Your task to perform on an android device: turn on the 12-hour format for clock Image 0: 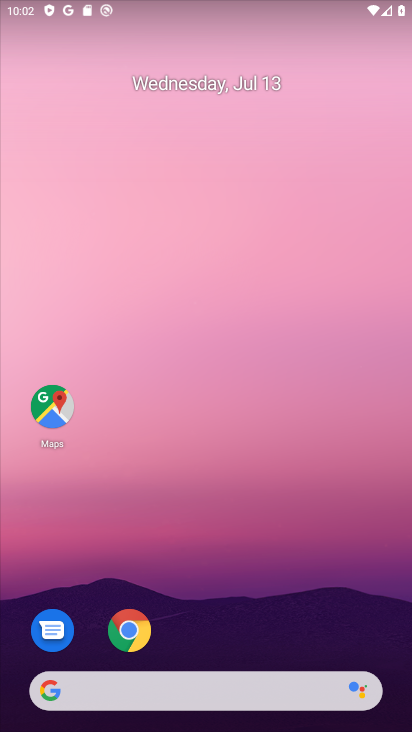
Step 0: drag from (261, 618) to (264, 146)
Your task to perform on an android device: turn on the 12-hour format for clock Image 1: 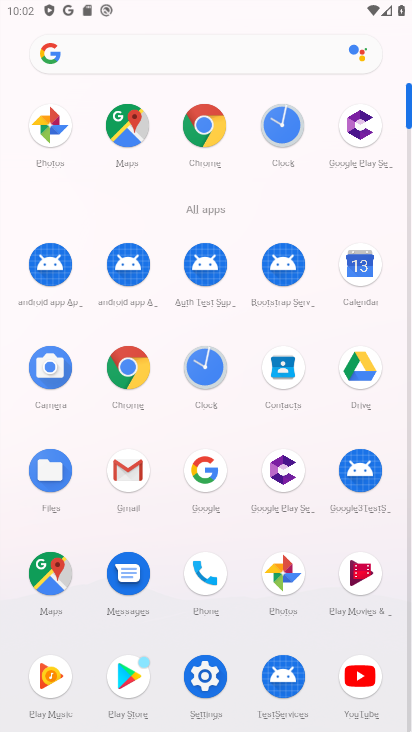
Step 1: click (284, 128)
Your task to perform on an android device: turn on the 12-hour format for clock Image 2: 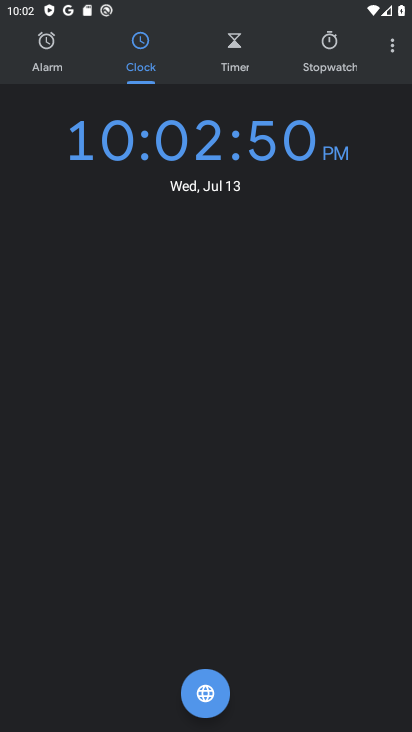
Step 2: click (391, 48)
Your task to perform on an android device: turn on the 12-hour format for clock Image 3: 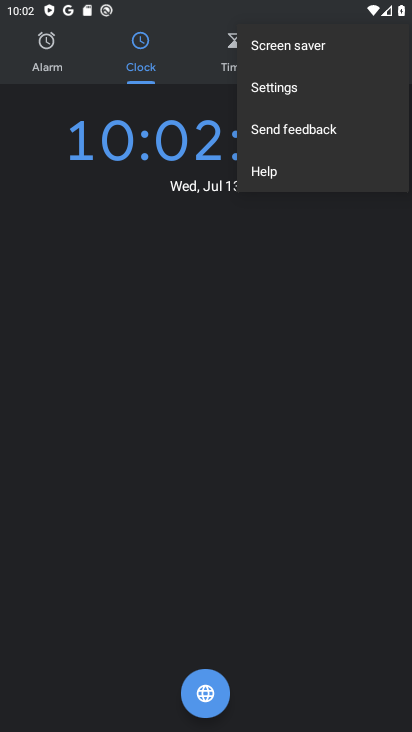
Step 3: click (324, 86)
Your task to perform on an android device: turn on the 12-hour format for clock Image 4: 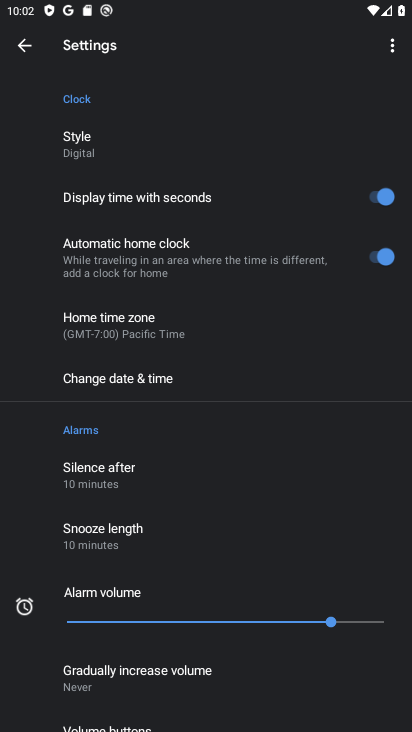
Step 4: click (222, 386)
Your task to perform on an android device: turn on the 12-hour format for clock Image 5: 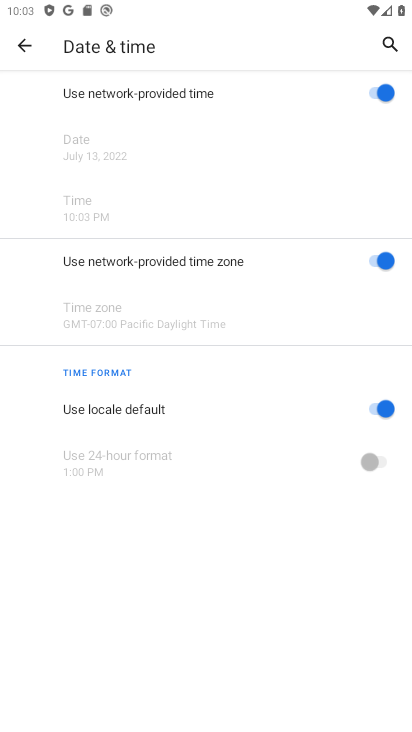
Step 5: task complete